Your task to perform on an android device: find snoozed emails in the gmail app Image 0: 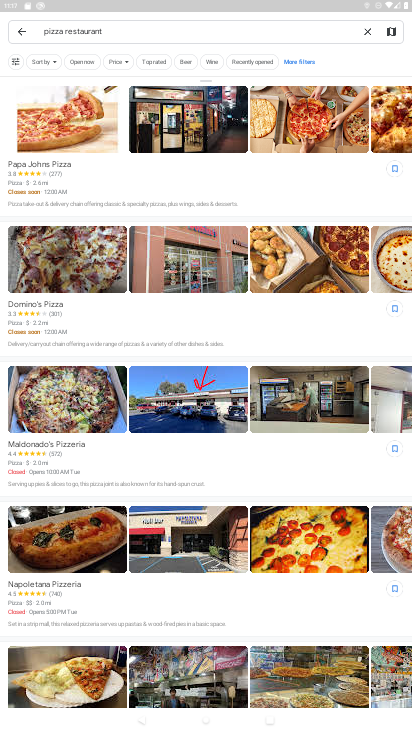
Step 0: press home button
Your task to perform on an android device: find snoozed emails in the gmail app Image 1: 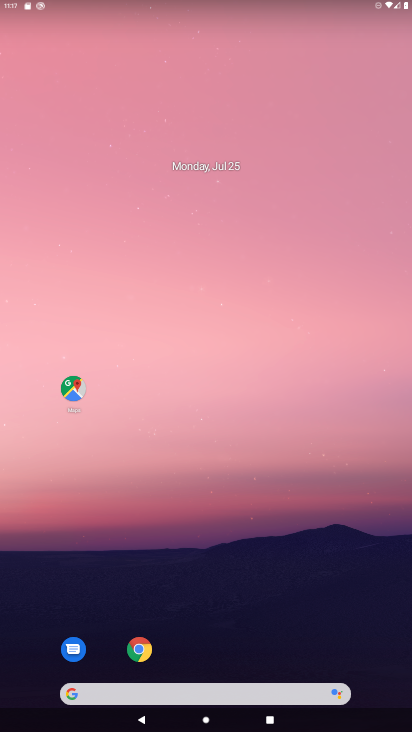
Step 1: drag from (376, 657) to (333, 180)
Your task to perform on an android device: find snoozed emails in the gmail app Image 2: 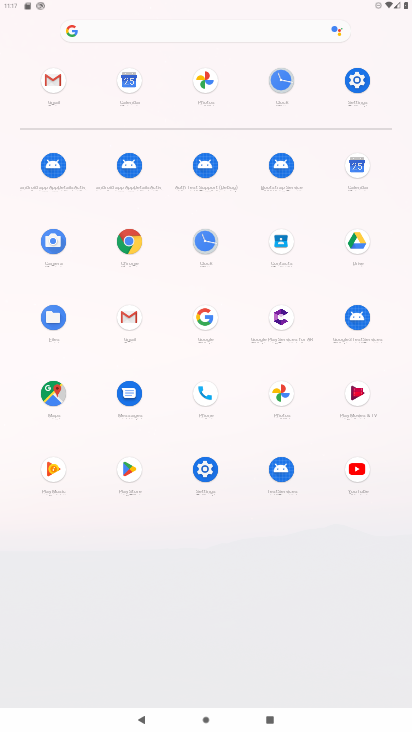
Step 2: click (127, 316)
Your task to perform on an android device: find snoozed emails in the gmail app Image 3: 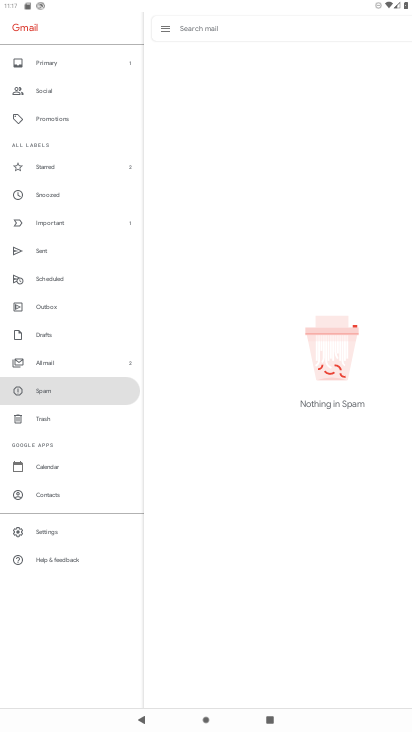
Step 3: click (48, 197)
Your task to perform on an android device: find snoozed emails in the gmail app Image 4: 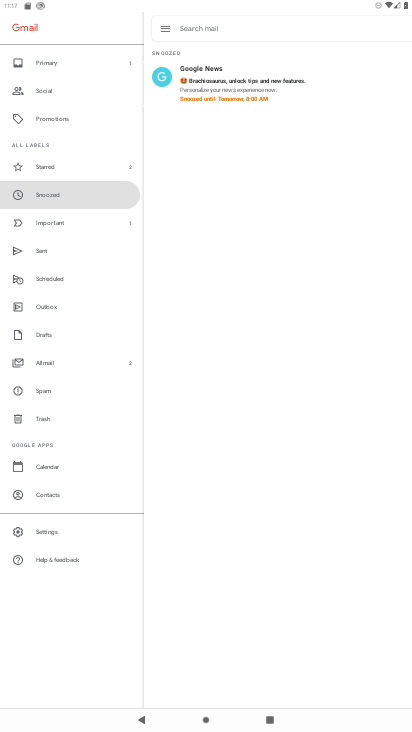
Step 4: task complete